Your task to perform on an android device: Open Chrome and go to settings Image 0: 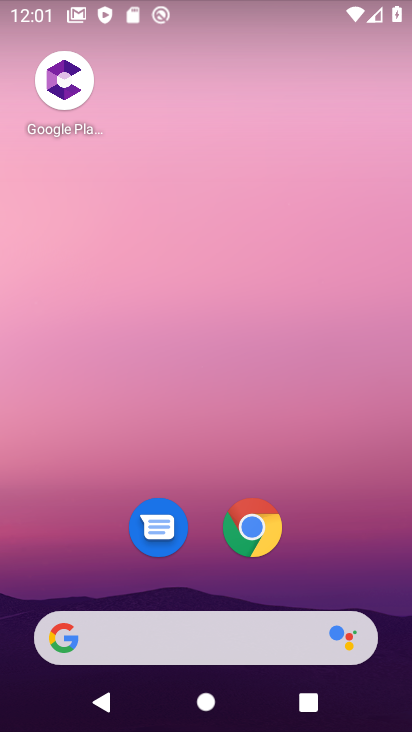
Step 0: click (256, 536)
Your task to perform on an android device: Open Chrome and go to settings Image 1: 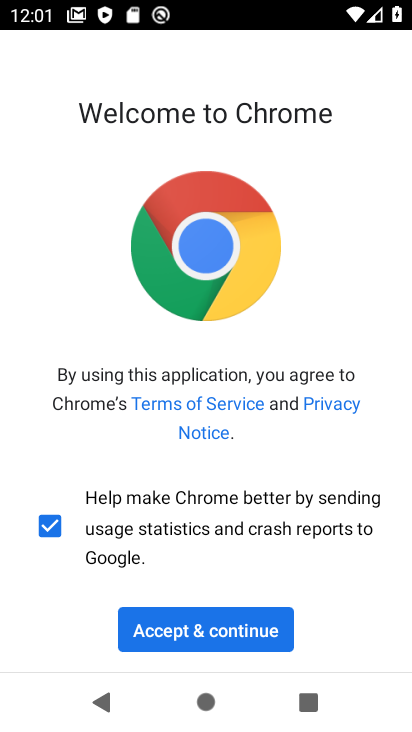
Step 1: click (220, 631)
Your task to perform on an android device: Open Chrome and go to settings Image 2: 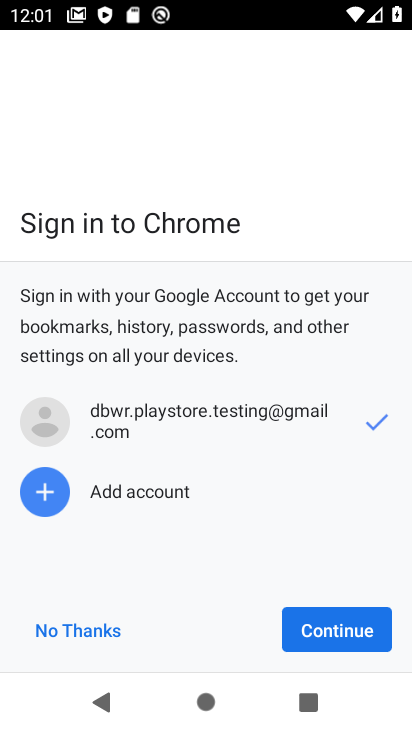
Step 2: click (304, 630)
Your task to perform on an android device: Open Chrome and go to settings Image 3: 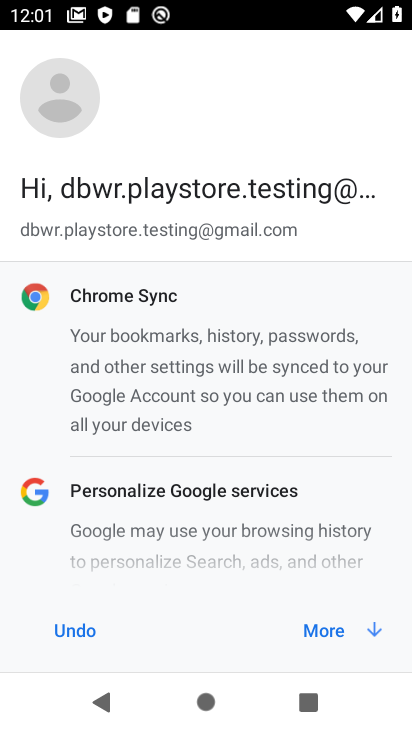
Step 3: click (304, 630)
Your task to perform on an android device: Open Chrome and go to settings Image 4: 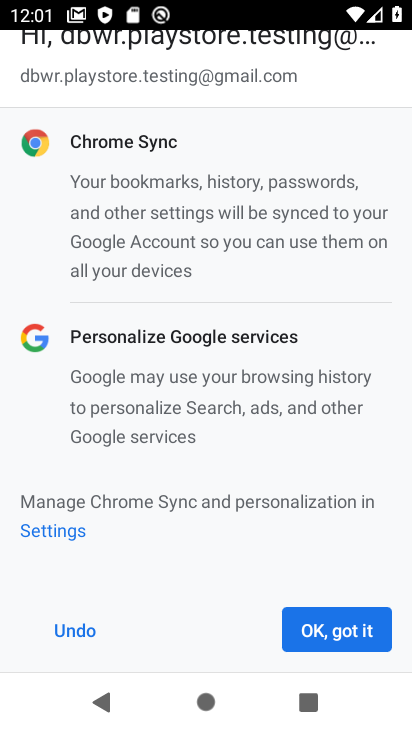
Step 4: click (315, 629)
Your task to perform on an android device: Open Chrome and go to settings Image 5: 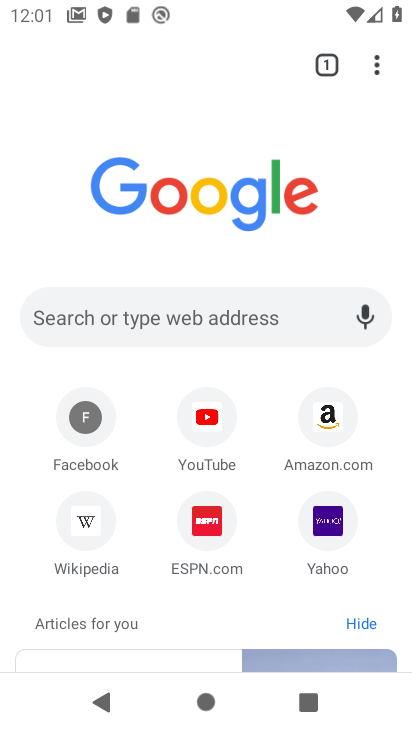
Step 5: task complete